Your task to perform on an android device: turn on translation in the chrome app Image 0: 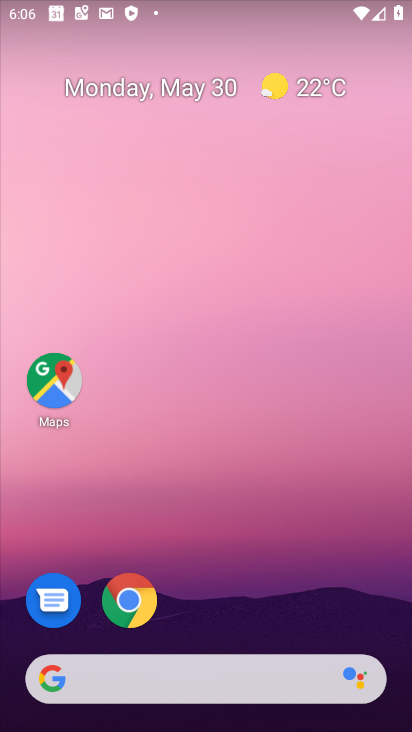
Step 0: press home button
Your task to perform on an android device: turn on translation in the chrome app Image 1: 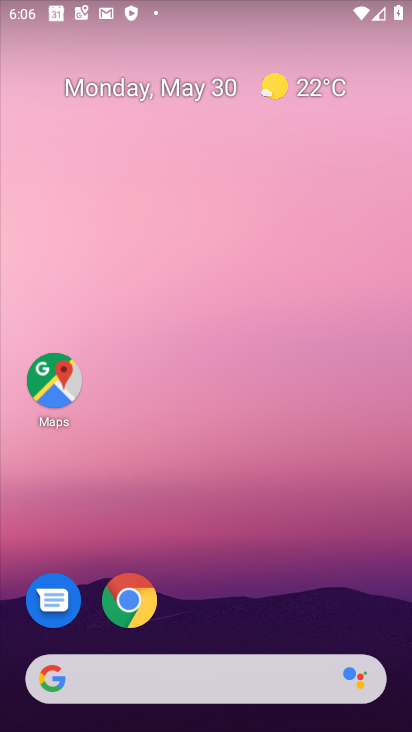
Step 1: click (122, 594)
Your task to perform on an android device: turn on translation in the chrome app Image 2: 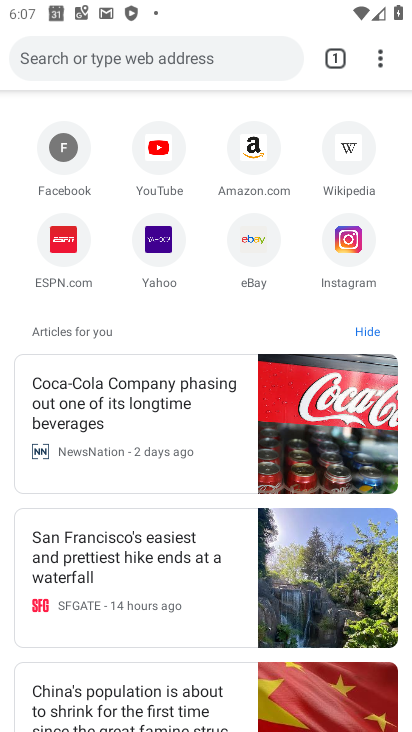
Step 2: drag from (384, 59) to (156, 502)
Your task to perform on an android device: turn on translation in the chrome app Image 3: 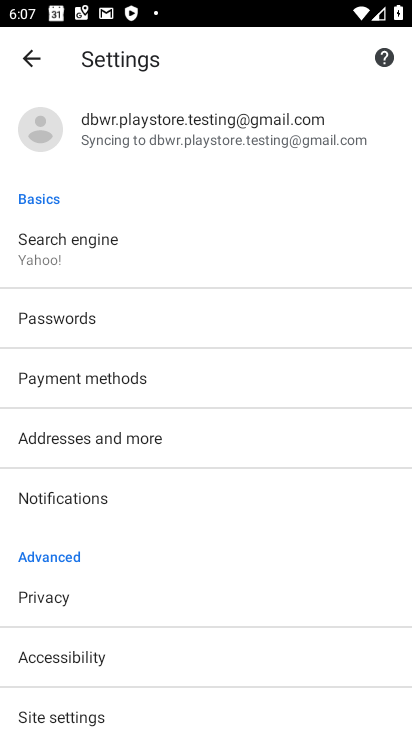
Step 3: drag from (175, 658) to (182, 349)
Your task to perform on an android device: turn on translation in the chrome app Image 4: 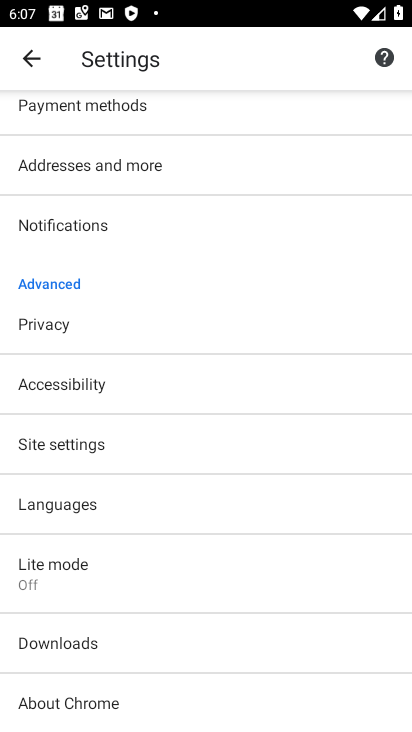
Step 4: click (43, 510)
Your task to perform on an android device: turn on translation in the chrome app Image 5: 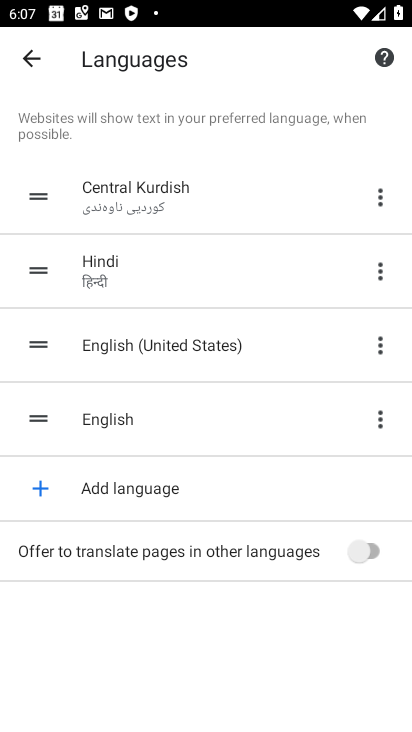
Step 5: task complete